Your task to perform on an android device: Go to CNN.com Image 0: 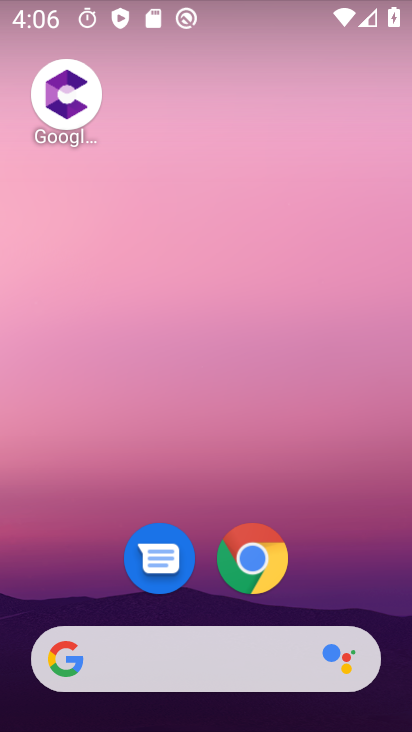
Step 0: drag from (338, 612) to (316, 119)
Your task to perform on an android device: Go to CNN.com Image 1: 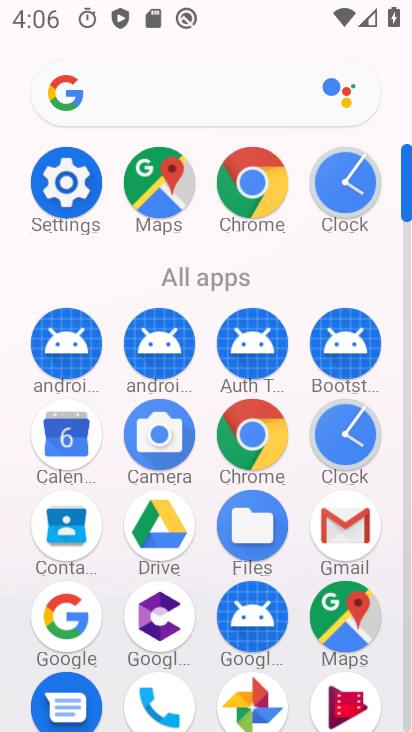
Step 1: click (260, 434)
Your task to perform on an android device: Go to CNN.com Image 2: 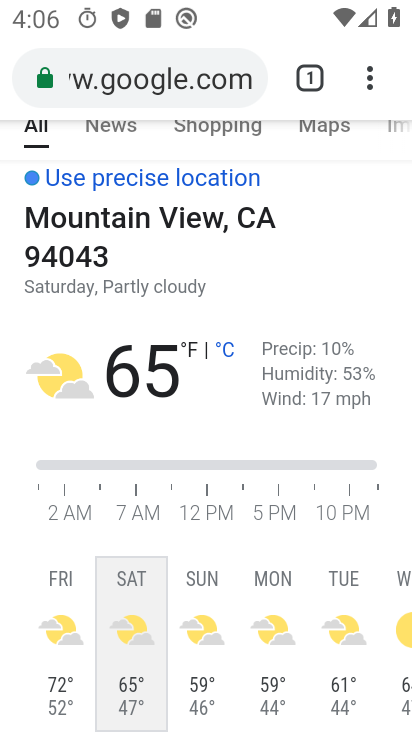
Step 2: click (223, 73)
Your task to perform on an android device: Go to CNN.com Image 3: 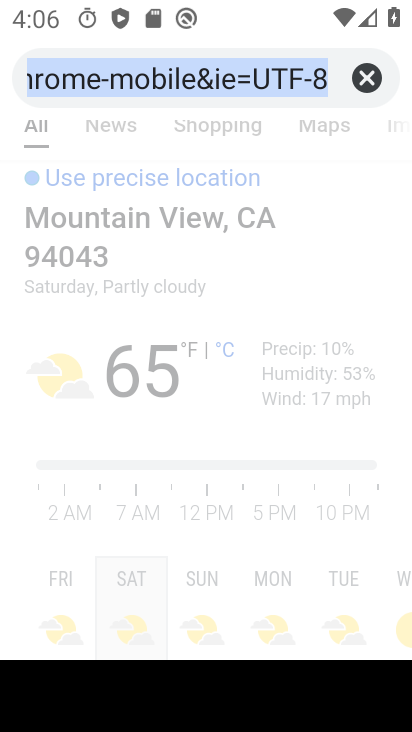
Step 3: click (359, 76)
Your task to perform on an android device: Go to CNN.com Image 4: 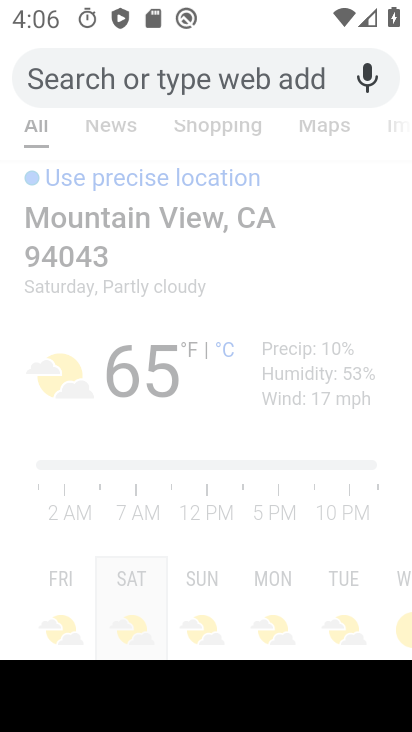
Step 4: type "cnn.com"
Your task to perform on an android device: Go to CNN.com Image 5: 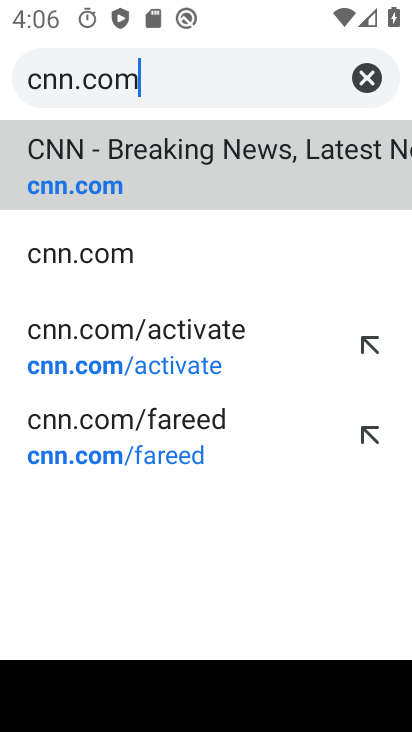
Step 5: click (185, 179)
Your task to perform on an android device: Go to CNN.com Image 6: 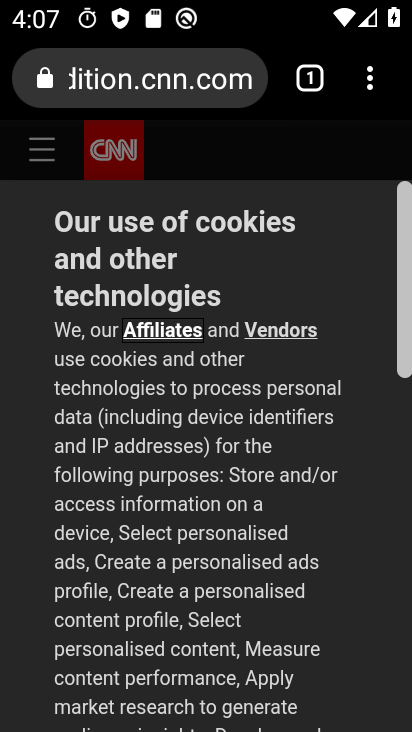
Step 6: task complete